Your task to perform on an android device: Do I have any events today? Image 0: 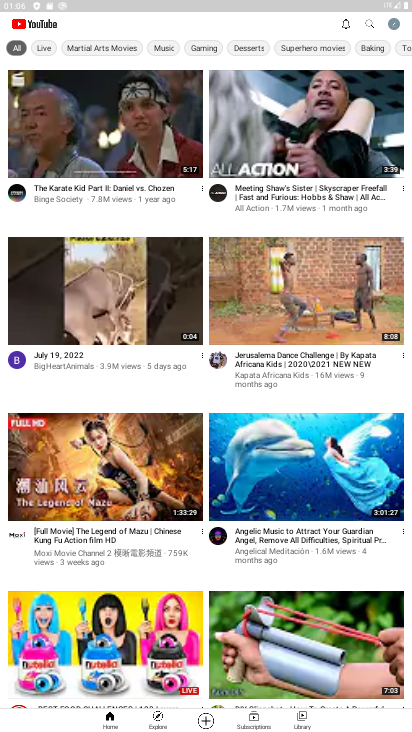
Step 0: press home button
Your task to perform on an android device: Do I have any events today? Image 1: 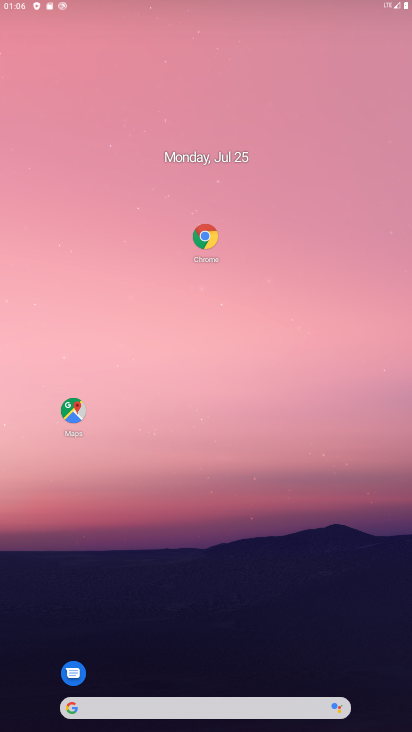
Step 1: drag from (164, 692) to (218, 97)
Your task to perform on an android device: Do I have any events today? Image 2: 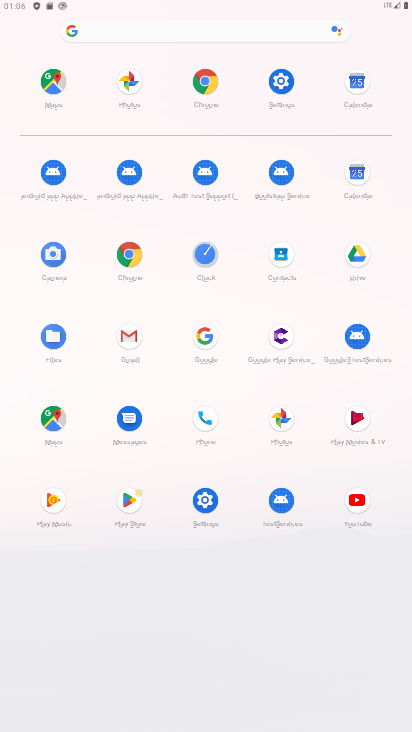
Step 2: click (359, 176)
Your task to perform on an android device: Do I have any events today? Image 3: 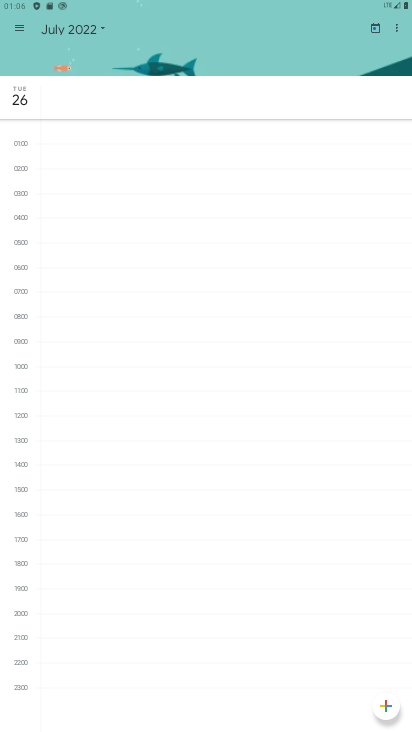
Step 3: click (107, 26)
Your task to perform on an android device: Do I have any events today? Image 4: 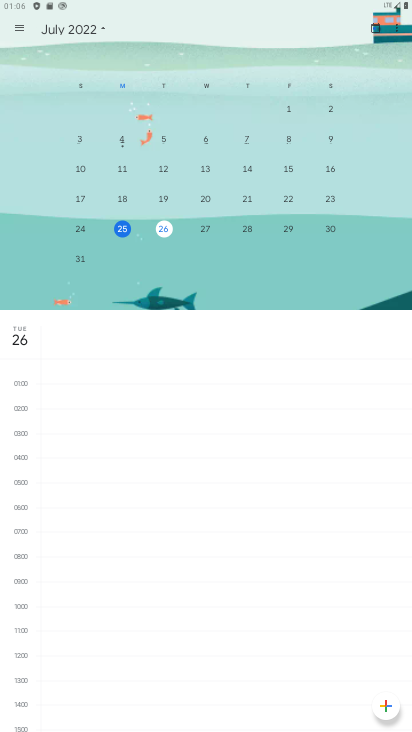
Step 4: click (161, 231)
Your task to perform on an android device: Do I have any events today? Image 5: 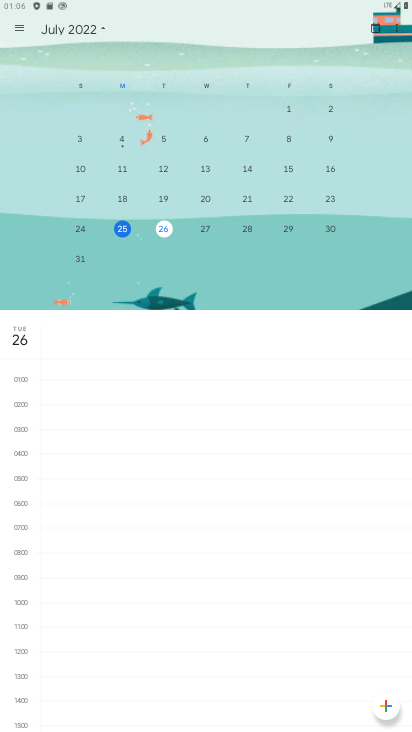
Step 5: task complete